Your task to perform on an android device: Go to location settings Image 0: 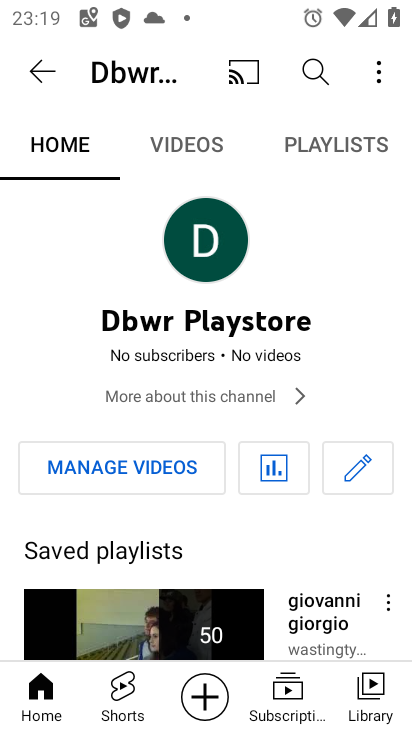
Step 0: press home button
Your task to perform on an android device: Go to location settings Image 1: 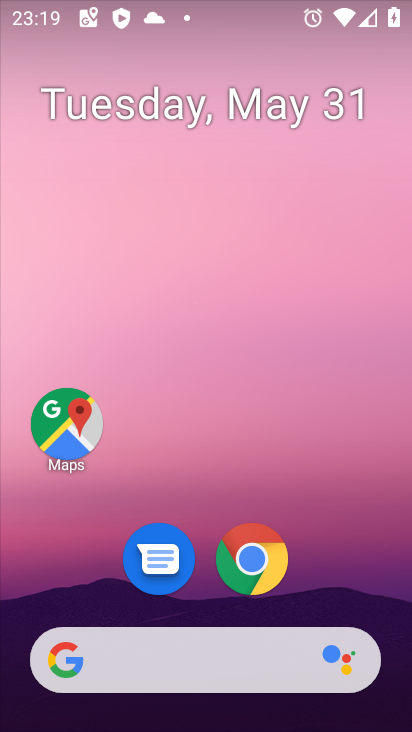
Step 1: drag from (336, 564) to (341, 96)
Your task to perform on an android device: Go to location settings Image 2: 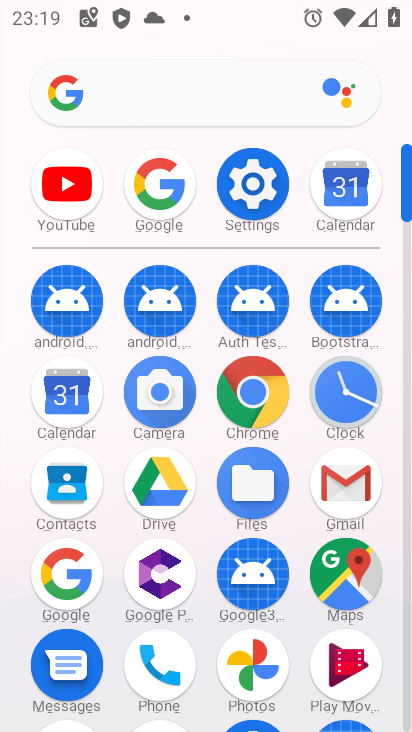
Step 2: click (246, 177)
Your task to perform on an android device: Go to location settings Image 3: 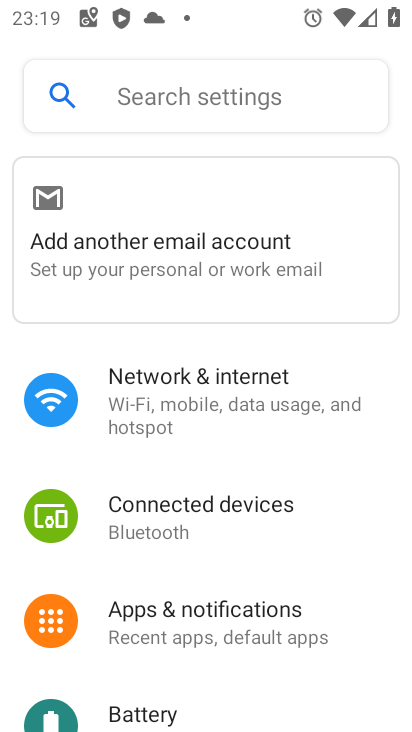
Step 3: drag from (213, 631) to (280, 108)
Your task to perform on an android device: Go to location settings Image 4: 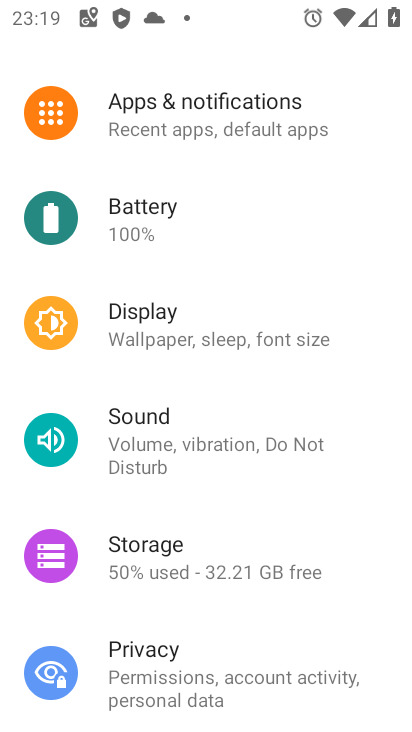
Step 4: drag from (270, 576) to (269, 115)
Your task to perform on an android device: Go to location settings Image 5: 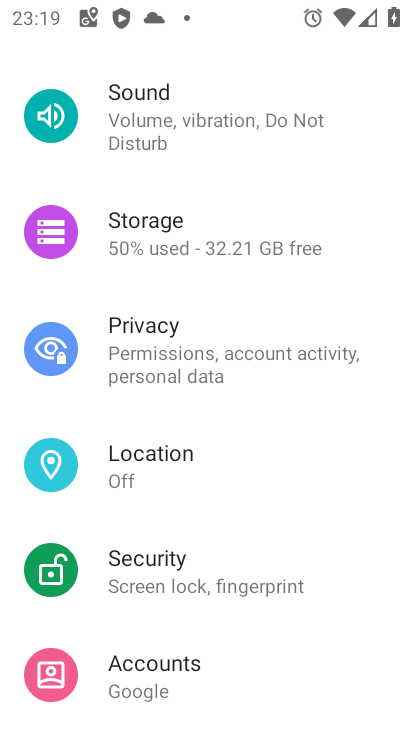
Step 5: click (183, 469)
Your task to perform on an android device: Go to location settings Image 6: 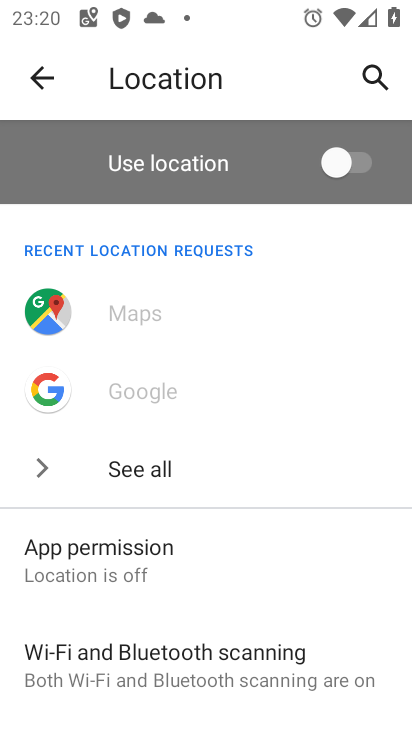
Step 6: task complete